Your task to perform on an android device: Open Maps and search for coffee Image 0: 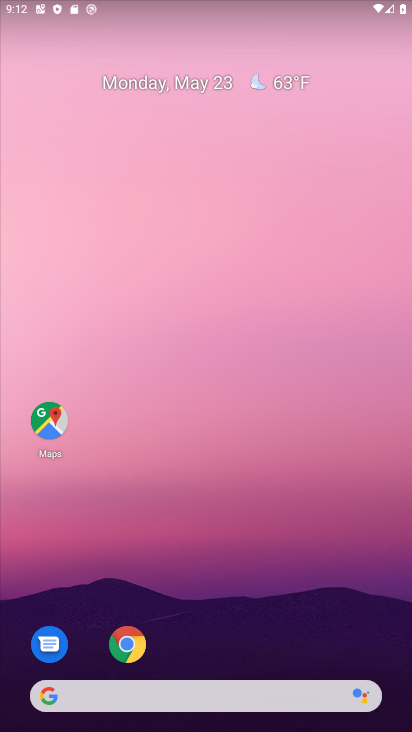
Step 0: click (44, 417)
Your task to perform on an android device: Open Maps and search for coffee Image 1: 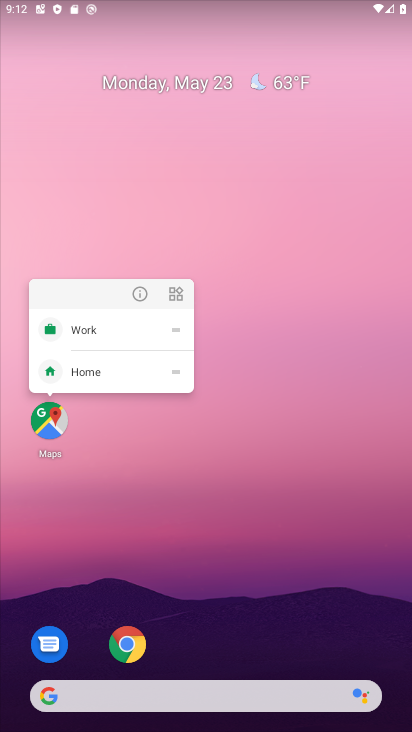
Step 1: click (46, 421)
Your task to perform on an android device: Open Maps and search for coffee Image 2: 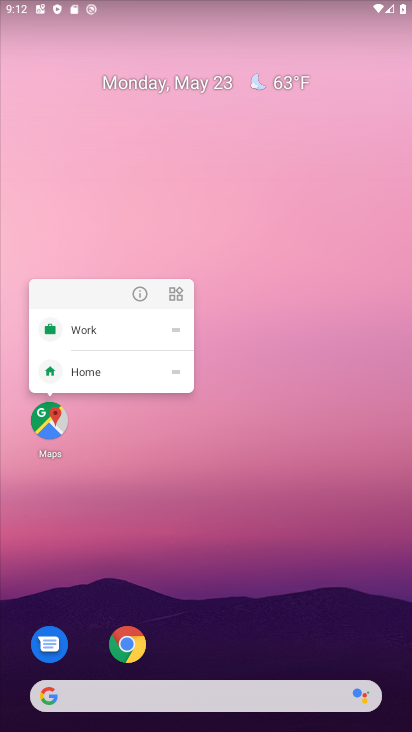
Step 2: click (46, 418)
Your task to perform on an android device: Open Maps and search for coffee Image 3: 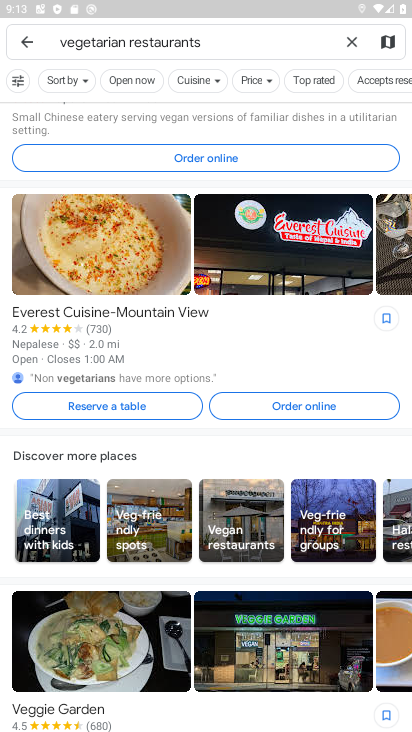
Step 3: click (346, 39)
Your task to perform on an android device: Open Maps and search for coffee Image 4: 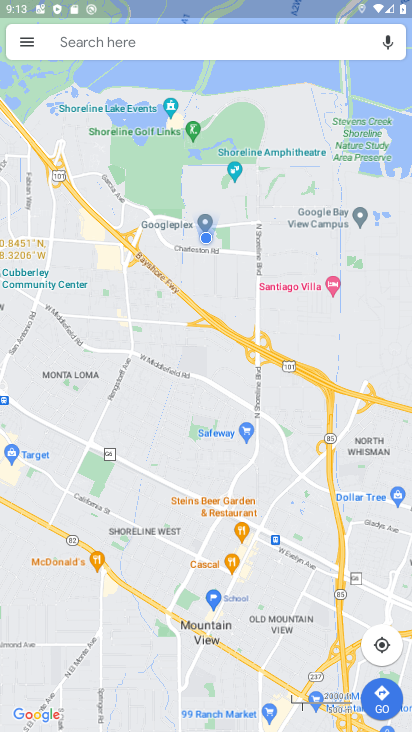
Step 4: click (120, 39)
Your task to perform on an android device: Open Maps and search for coffee Image 5: 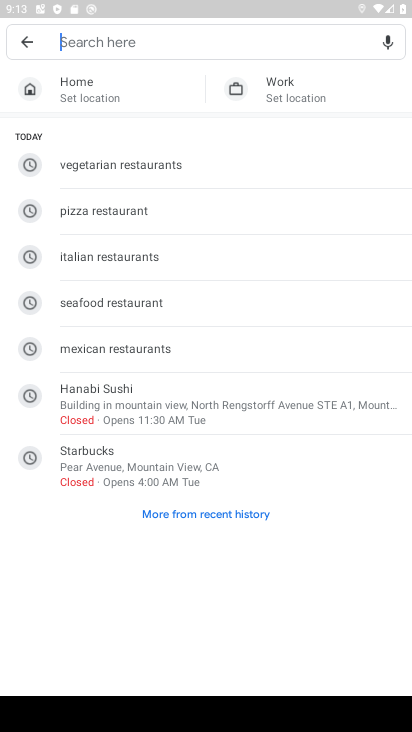
Step 5: type "coffee"
Your task to perform on an android device: Open Maps and search for coffee Image 6: 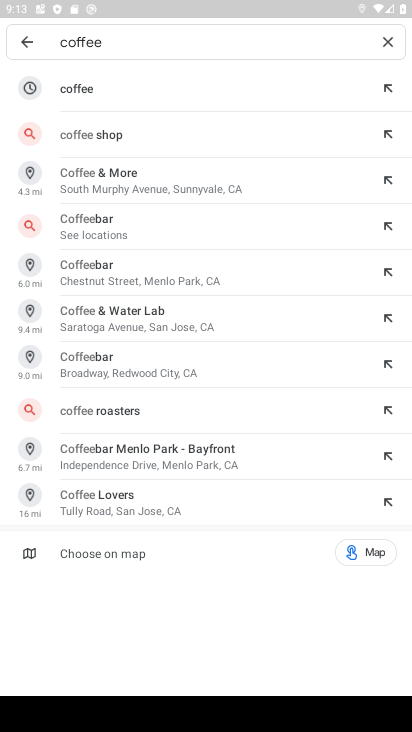
Step 6: click (105, 73)
Your task to perform on an android device: Open Maps and search for coffee Image 7: 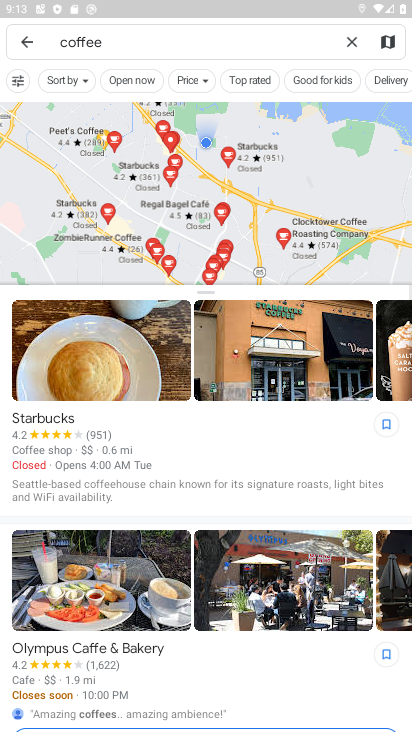
Step 7: task complete